Your task to perform on an android device: Go to display settings Image 0: 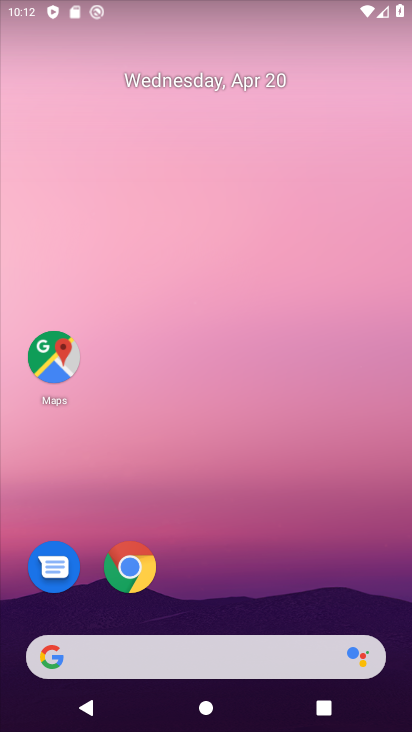
Step 0: drag from (310, 558) to (228, 120)
Your task to perform on an android device: Go to display settings Image 1: 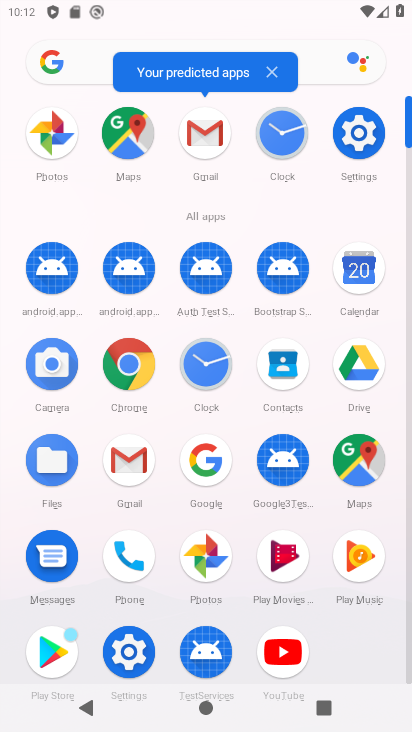
Step 1: click (355, 155)
Your task to perform on an android device: Go to display settings Image 2: 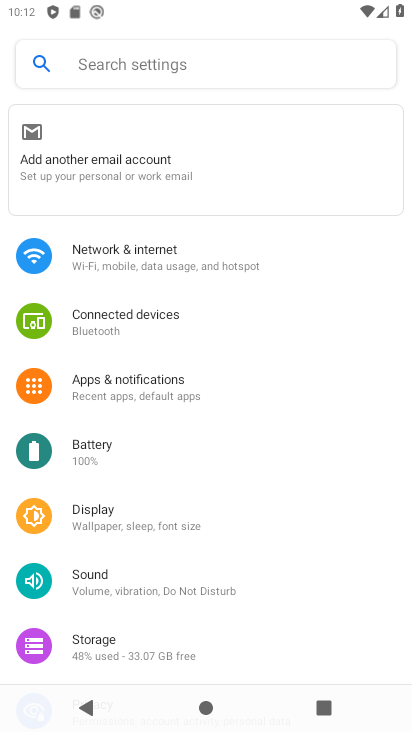
Step 2: click (119, 512)
Your task to perform on an android device: Go to display settings Image 3: 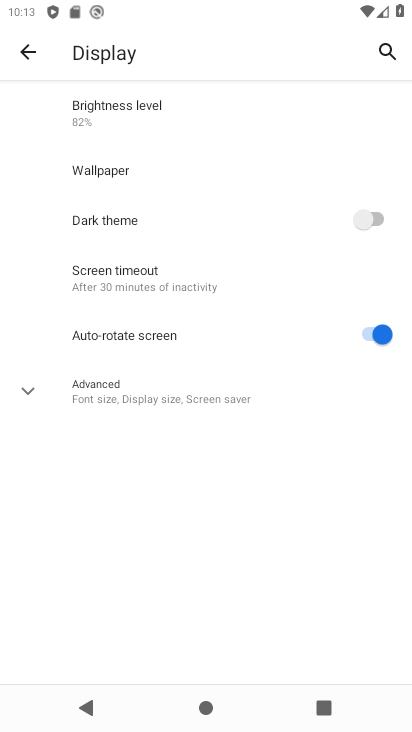
Step 3: task complete